Your task to perform on an android device: check data usage Image 0: 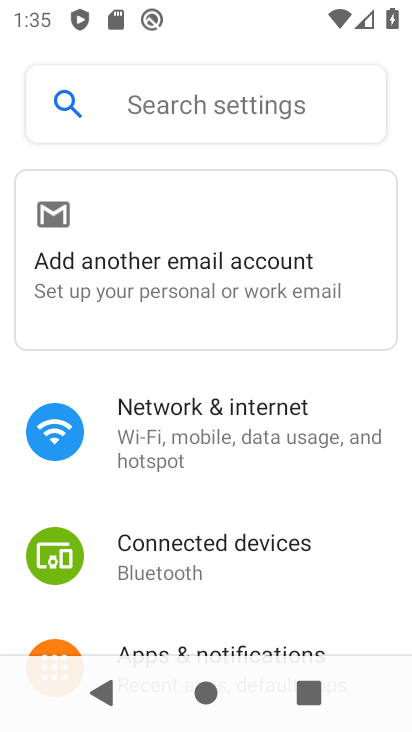
Step 0: click (257, 435)
Your task to perform on an android device: check data usage Image 1: 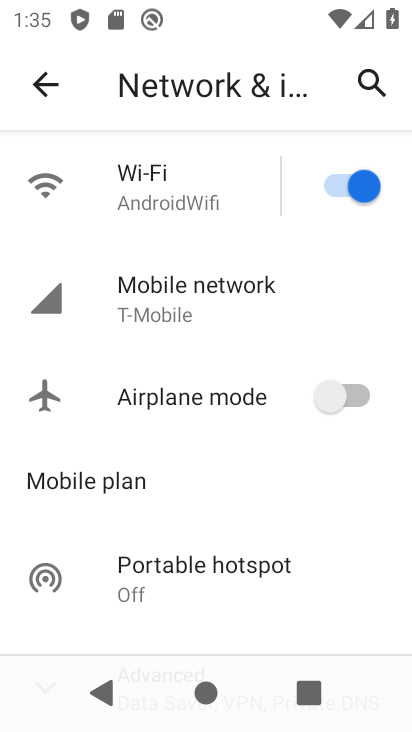
Step 1: click (181, 287)
Your task to perform on an android device: check data usage Image 2: 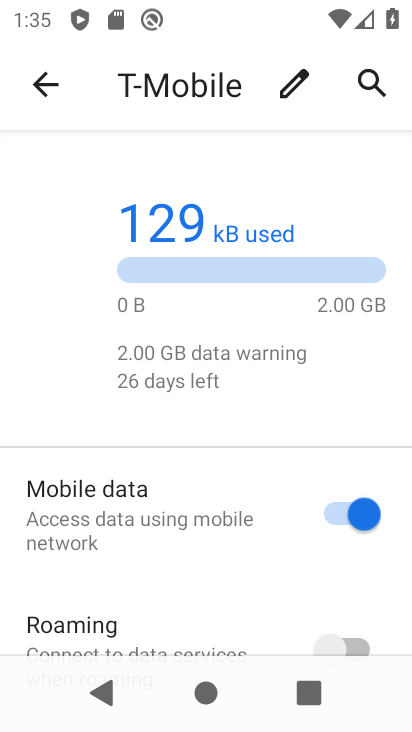
Step 2: task complete